Your task to perform on an android device: Go to location settings Image 0: 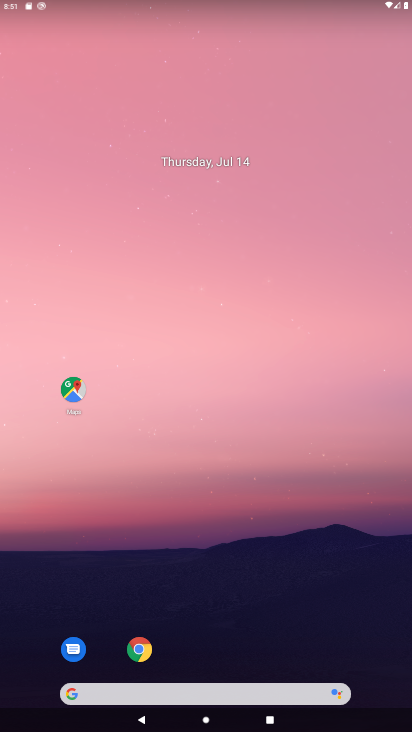
Step 0: drag from (204, 389) to (243, 8)
Your task to perform on an android device: Go to location settings Image 1: 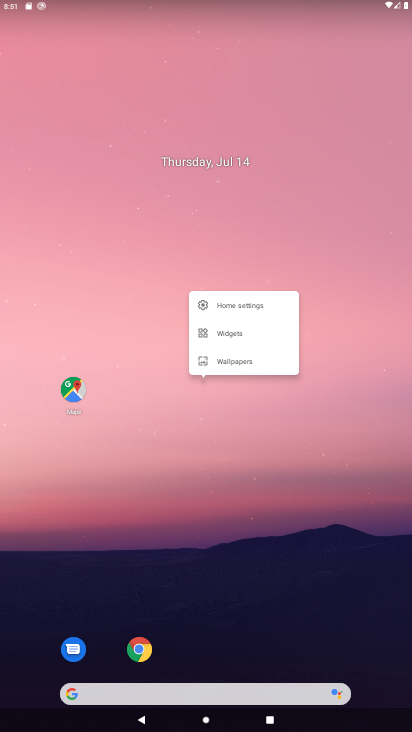
Step 1: drag from (307, 187) to (292, 0)
Your task to perform on an android device: Go to location settings Image 2: 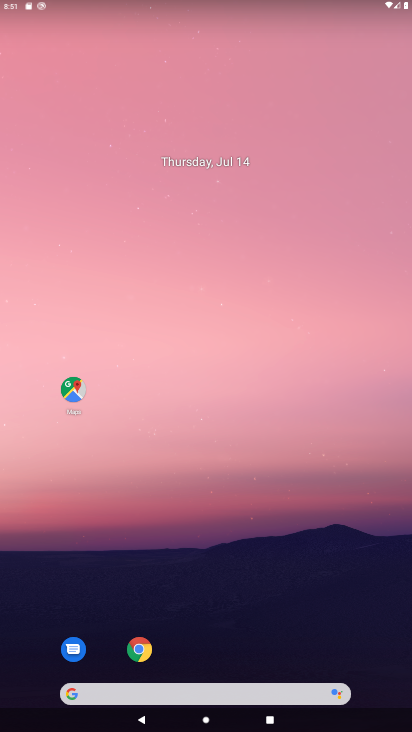
Step 2: drag from (241, 587) to (245, 5)
Your task to perform on an android device: Go to location settings Image 3: 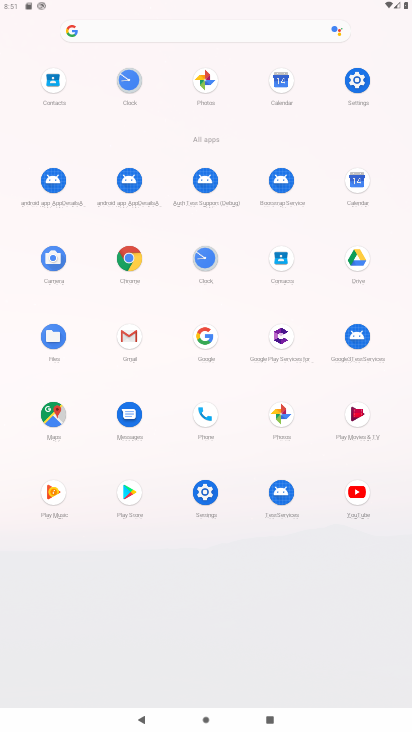
Step 3: click (207, 505)
Your task to perform on an android device: Go to location settings Image 4: 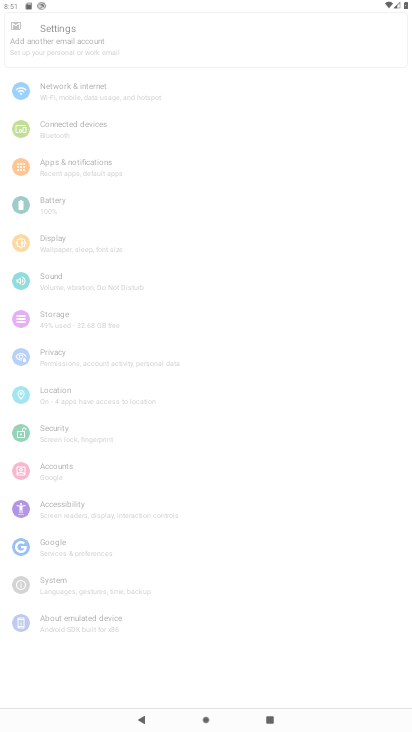
Step 4: click (209, 497)
Your task to perform on an android device: Go to location settings Image 5: 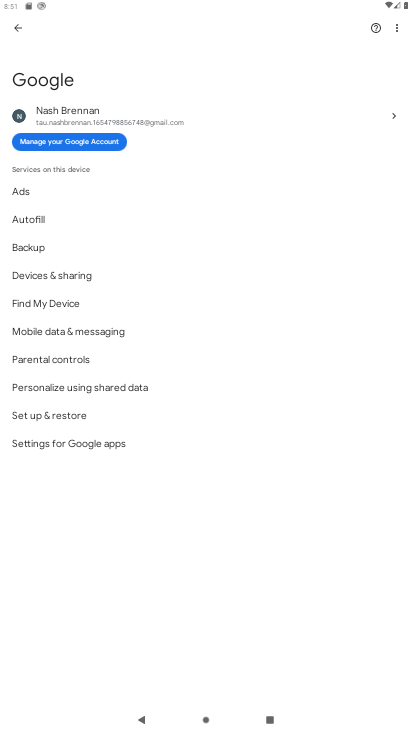
Step 5: click (15, 21)
Your task to perform on an android device: Go to location settings Image 6: 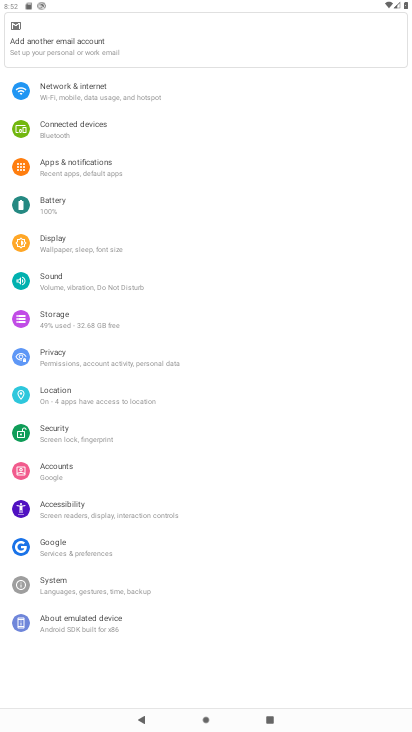
Step 6: click (89, 406)
Your task to perform on an android device: Go to location settings Image 7: 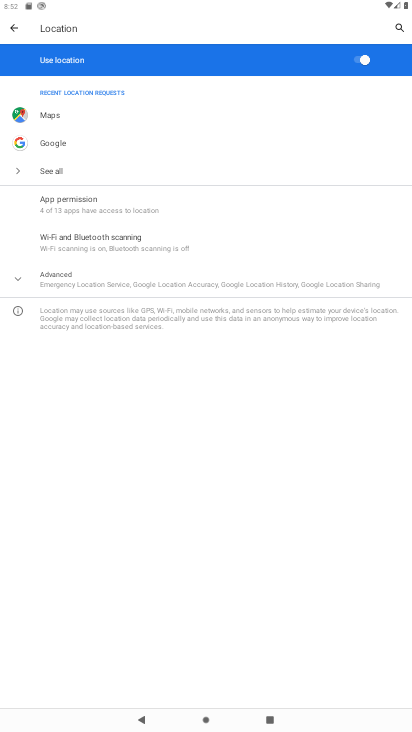
Step 7: task complete